Your task to perform on an android device: toggle priority inbox in the gmail app Image 0: 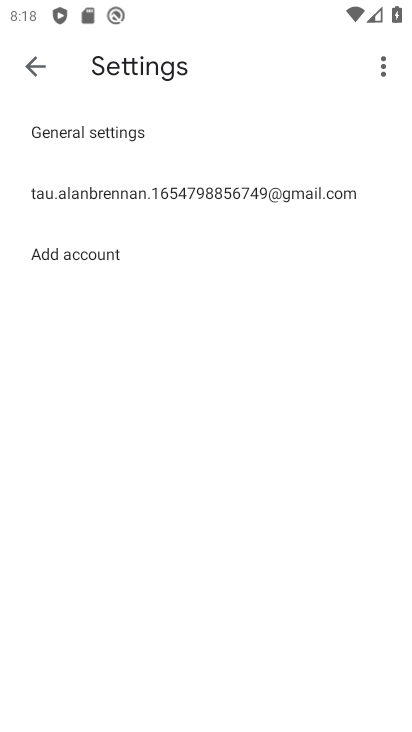
Step 0: press home button
Your task to perform on an android device: toggle priority inbox in the gmail app Image 1: 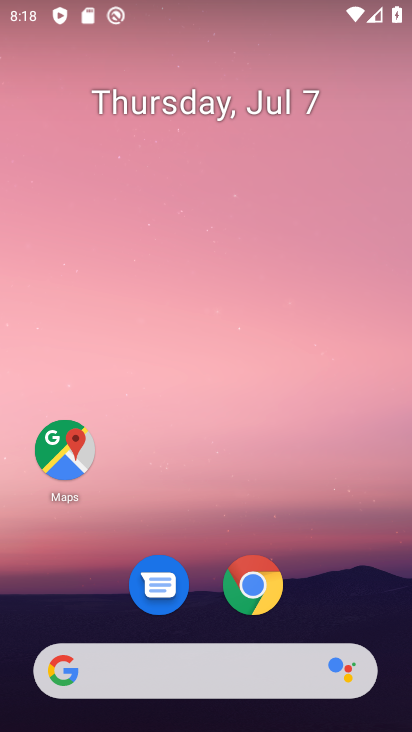
Step 1: drag from (310, 597) to (220, 22)
Your task to perform on an android device: toggle priority inbox in the gmail app Image 2: 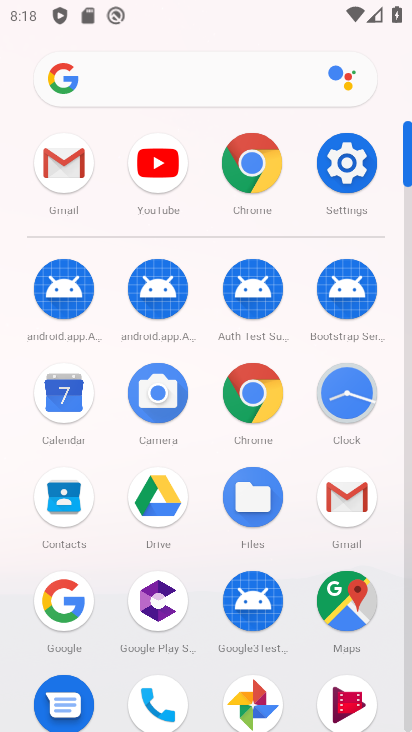
Step 2: click (76, 166)
Your task to perform on an android device: toggle priority inbox in the gmail app Image 3: 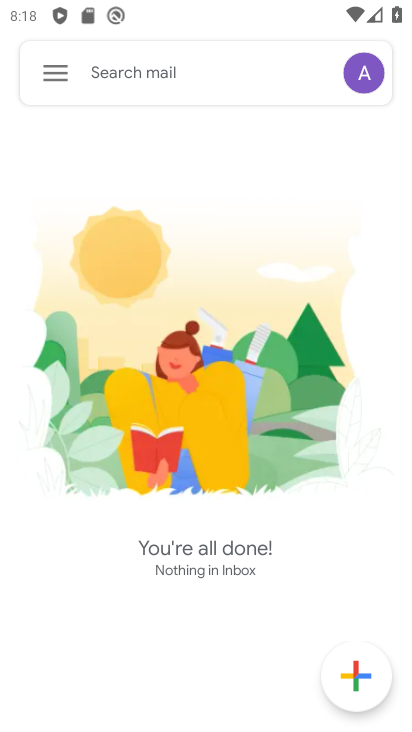
Step 3: click (56, 69)
Your task to perform on an android device: toggle priority inbox in the gmail app Image 4: 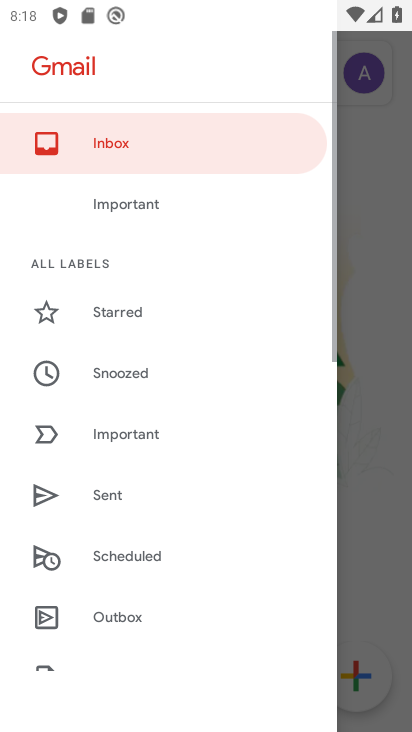
Step 4: drag from (177, 452) to (192, 50)
Your task to perform on an android device: toggle priority inbox in the gmail app Image 5: 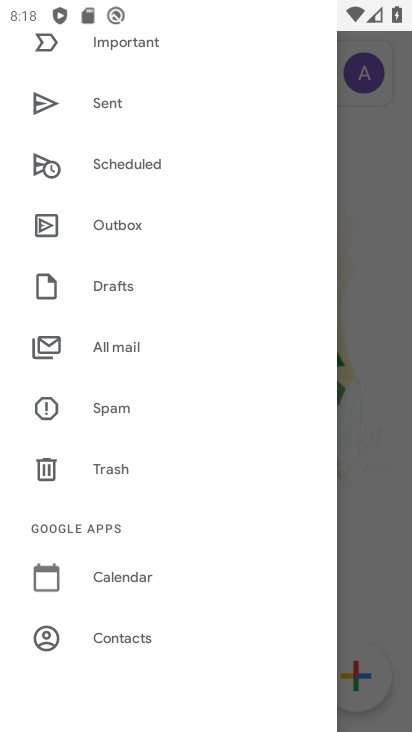
Step 5: drag from (206, 601) to (221, 307)
Your task to perform on an android device: toggle priority inbox in the gmail app Image 6: 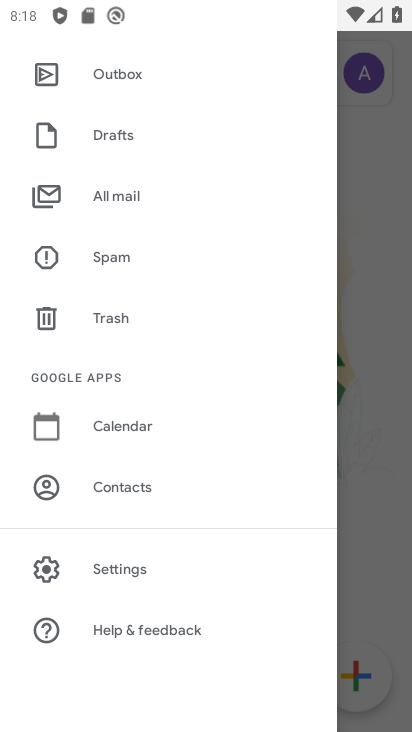
Step 6: click (135, 564)
Your task to perform on an android device: toggle priority inbox in the gmail app Image 7: 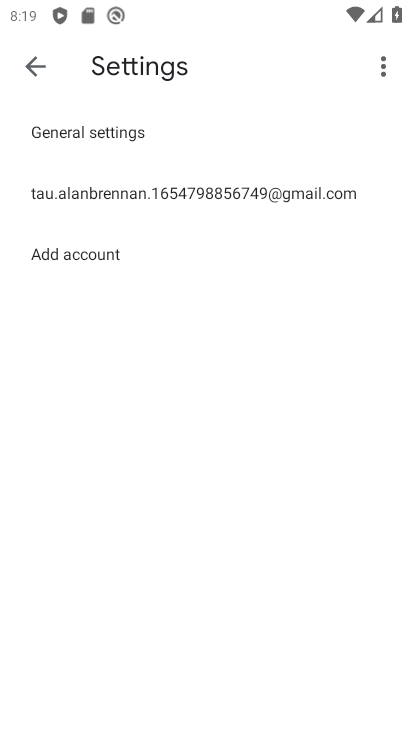
Step 7: click (262, 195)
Your task to perform on an android device: toggle priority inbox in the gmail app Image 8: 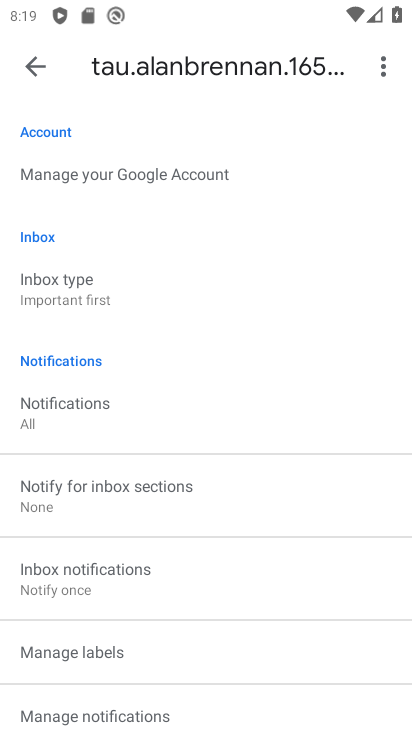
Step 8: click (75, 286)
Your task to perform on an android device: toggle priority inbox in the gmail app Image 9: 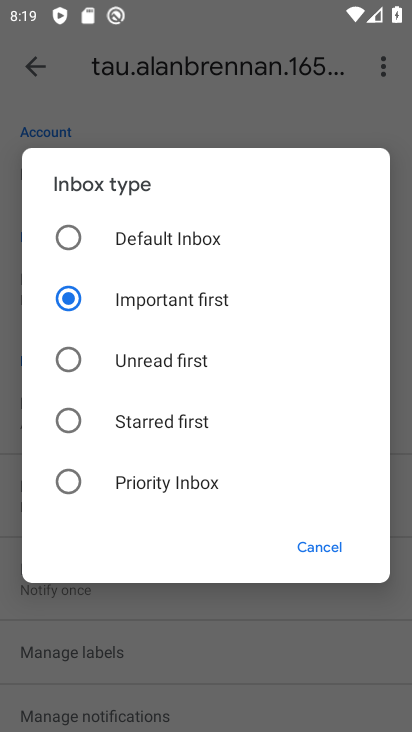
Step 9: click (67, 478)
Your task to perform on an android device: toggle priority inbox in the gmail app Image 10: 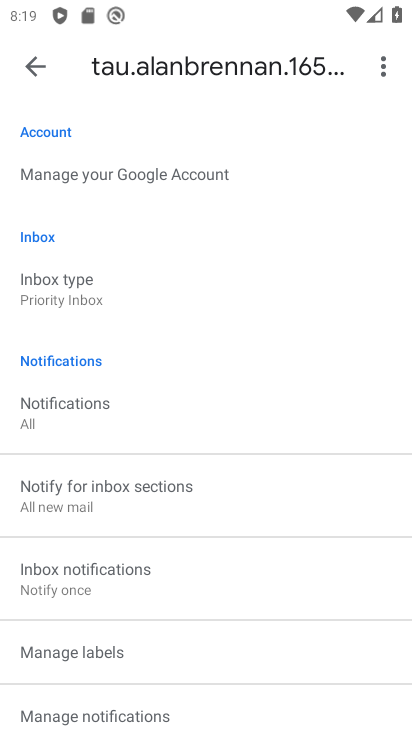
Step 10: task complete